Your task to perform on an android device: check storage Image 0: 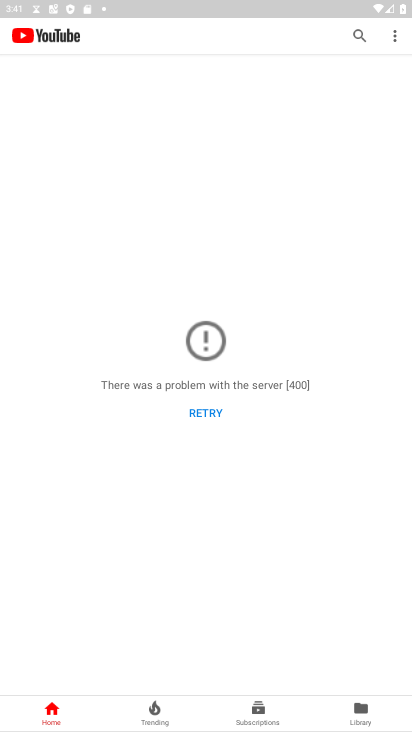
Step 0: press home button
Your task to perform on an android device: check storage Image 1: 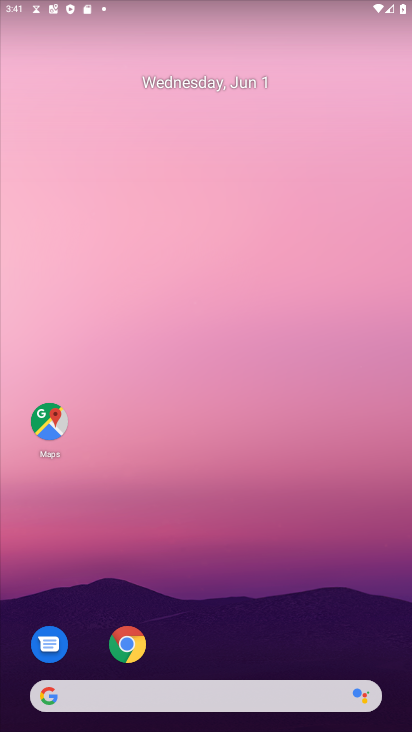
Step 1: drag from (352, 573) to (388, 134)
Your task to perform on an android device: check storage Image 2: 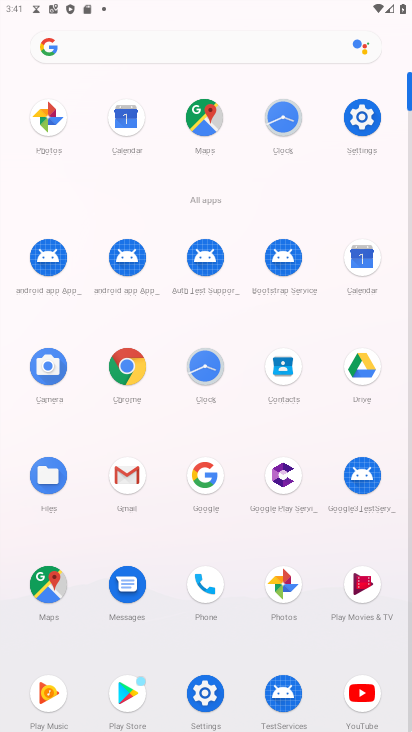
Step 2: click (361, 121)
Your task to perform on an android device: check storage Image 3: 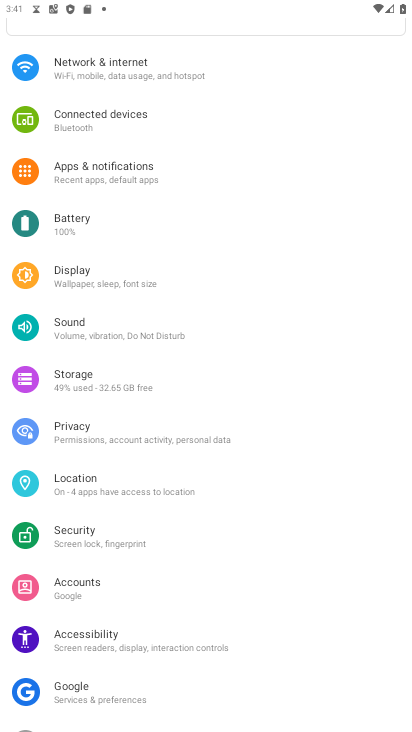
Step 3: click (148, 380)
Your task to perform on an android device: check storage Image 4: 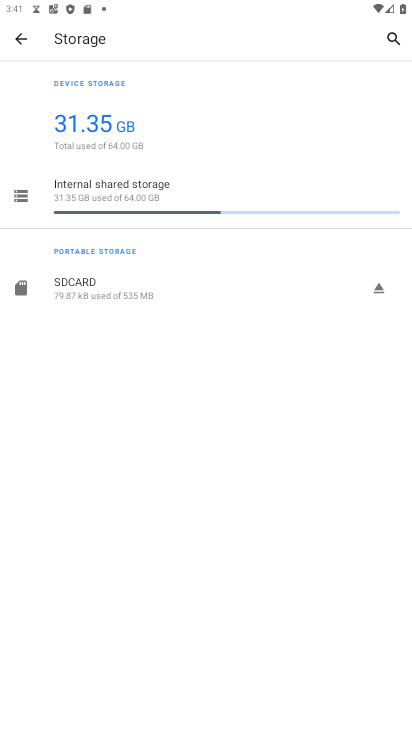
Step 4: task complete